Your task to perform on an android device: turn off data saver in the chrome app Image 0: 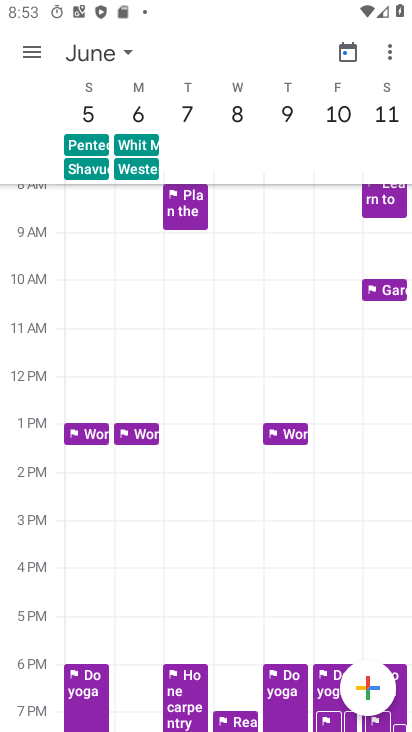
Step 0: press home button
Your task to perform on an android device: turn off data saver in the chrome app Image 1: 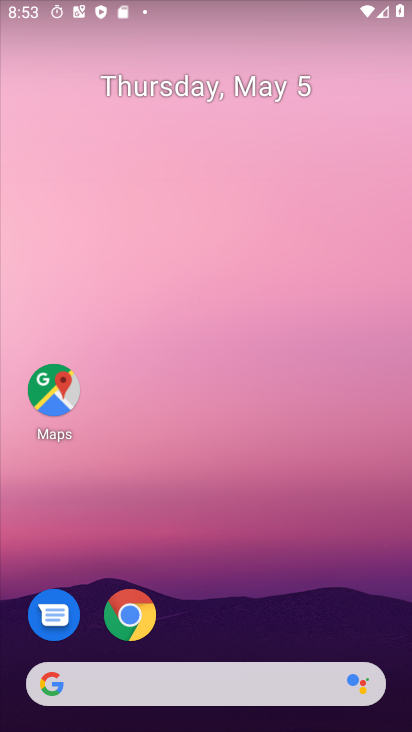
Step 1: click (136, 622)
Your task to perform on an android device: turn off data saver in the chrome app Image 2: 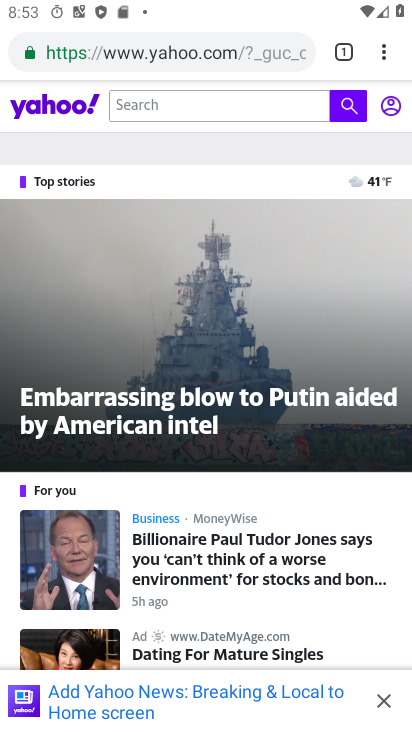
Step 2: click (382, 51)
Your task to perform on an android device: turn off data saver in the chrome app Image 3: 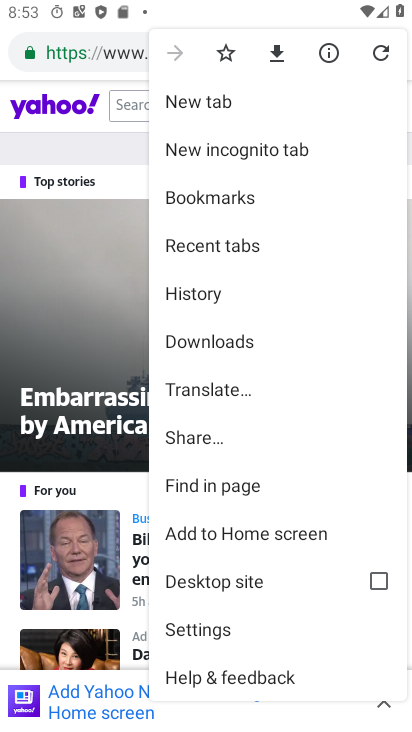
Step 3: click (201, 631)
Your task to perform on an android device: turn off data saver in the chrome app Image 4: 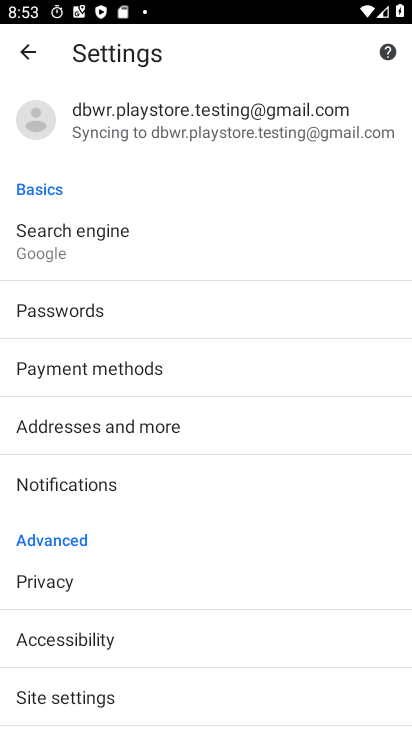
Step 4: drag from (103, 660) to (100, 316)
Your task to perform on an android device: turn off data saver in the chrome app Image 5: 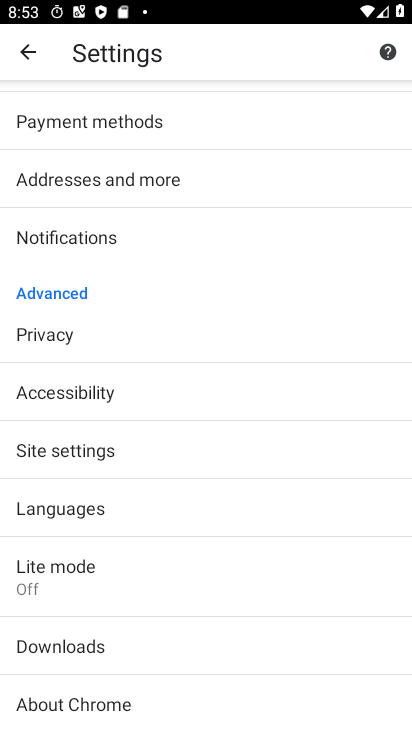
Step 5: click (43, 574)
Your task to perform on an android device: turn off data saver in the chrome app Image 6: 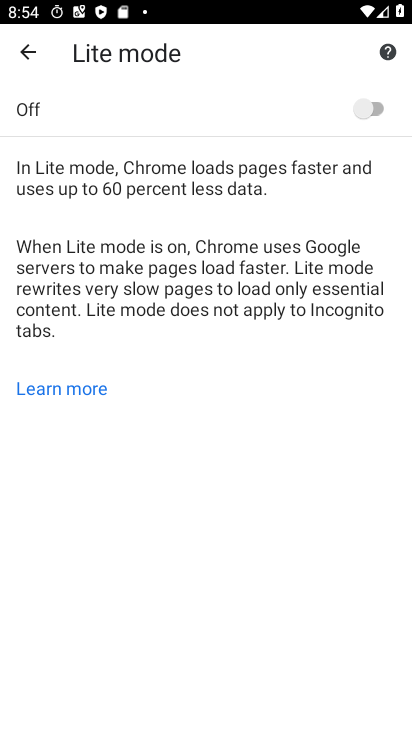
Step 6: task complete